Your task to perform on an android device: open wifi settings Image 0: 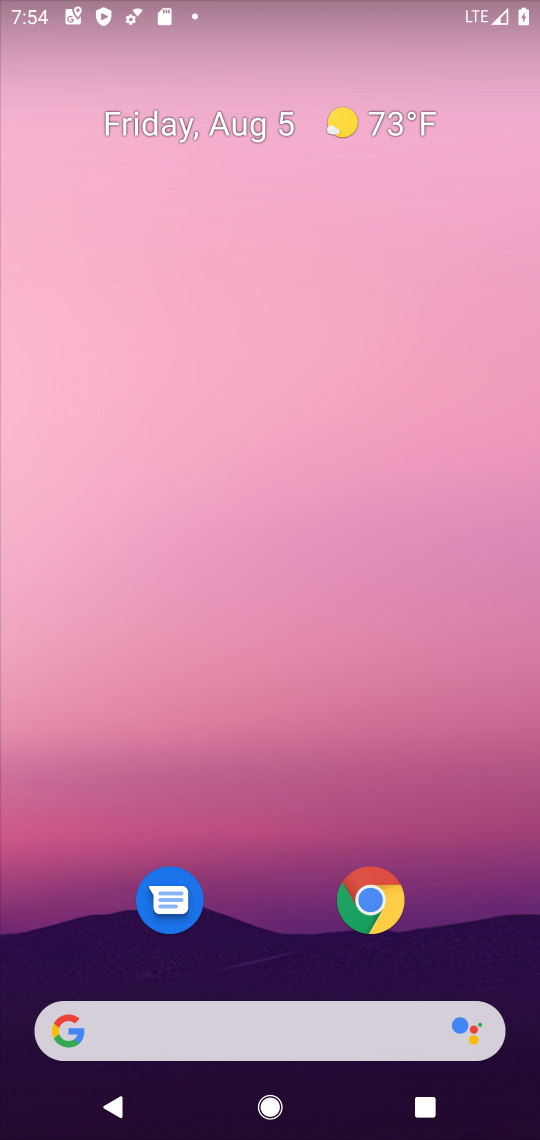
Step 0: drag from (228, 969) to (310, 397)
Your task to perform on an android device: open wifi settings Image 1: 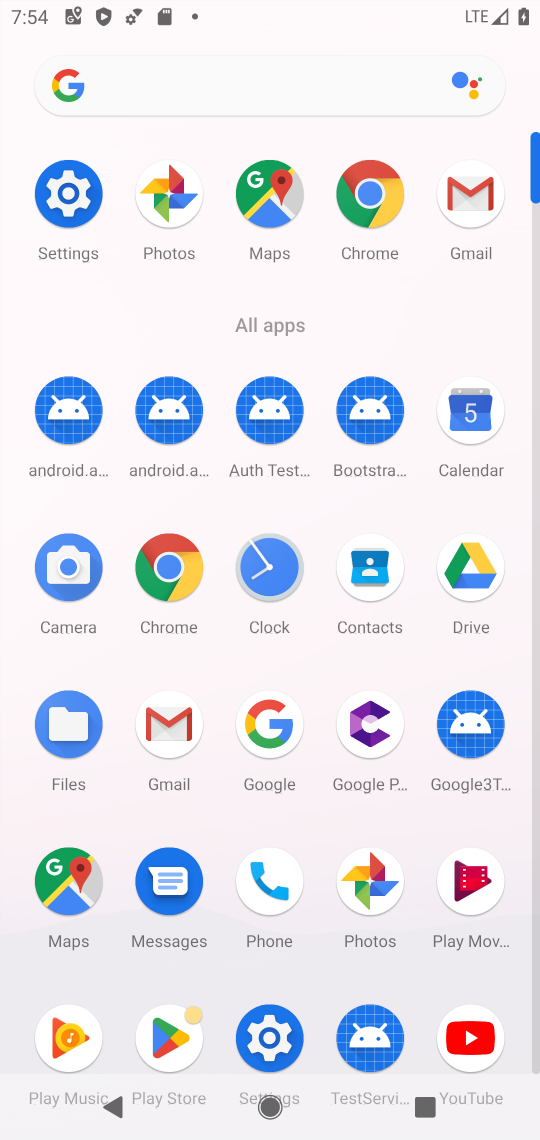
Step 1: click (270, 1018)
Your task to perform on an android device: open wifi settings Image 2: 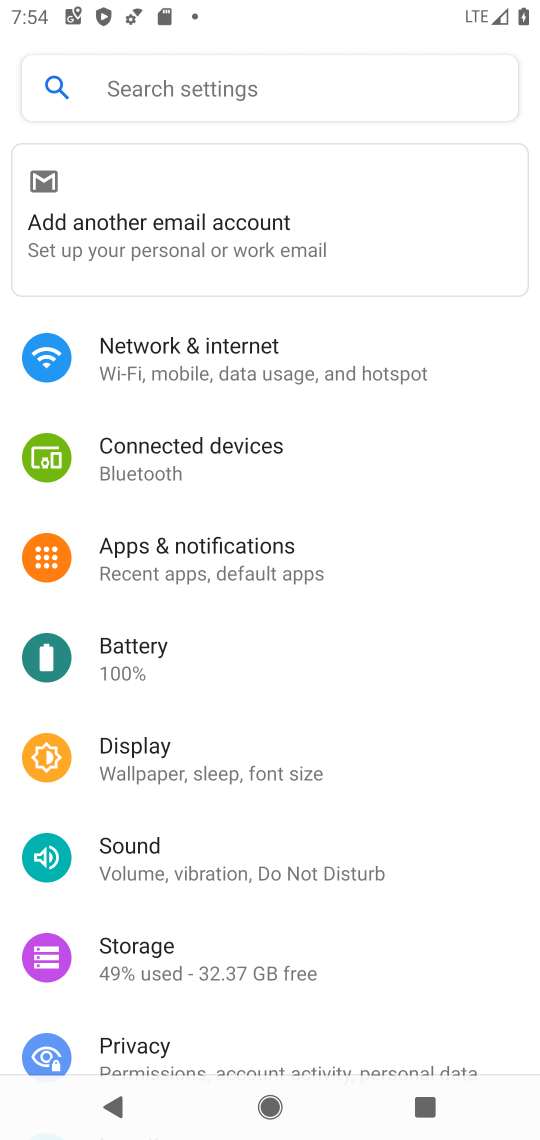
Step 2: click (165, 351)
Your task to perform on an android device: open wifi settings Image 3: 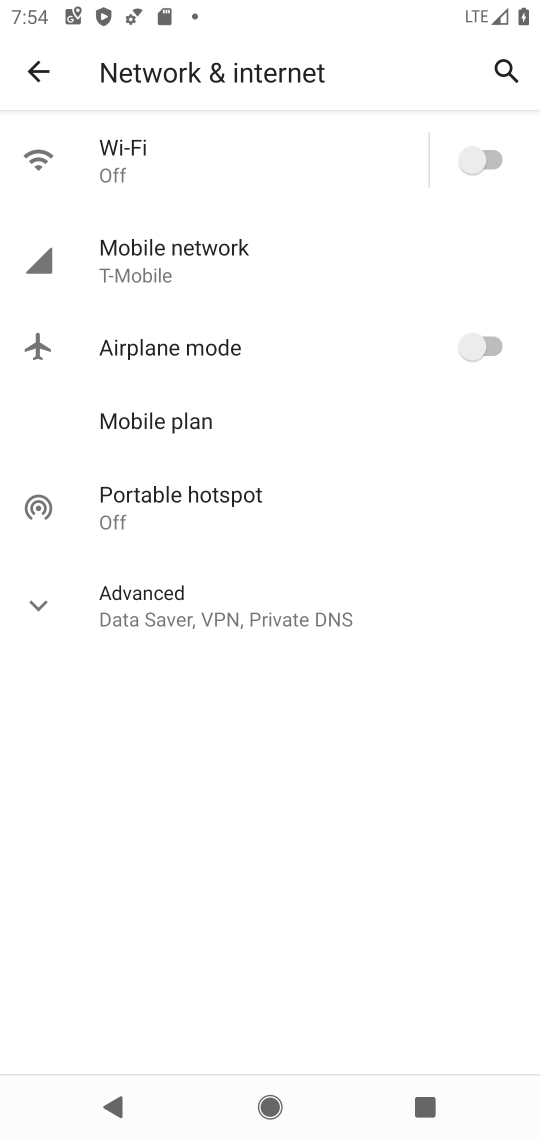
Step 3: click (132, 154)
Your task to perform on an android device: open wifi settings Image 4: 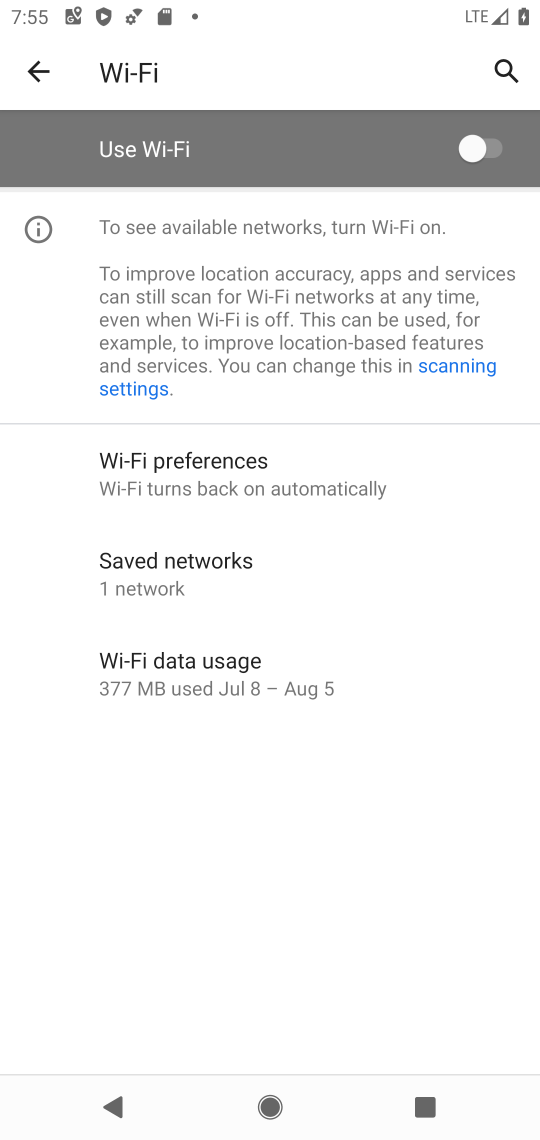
Step 4: click (491, 145)
Your task to perform on an android device: open wifi settings Image 5: 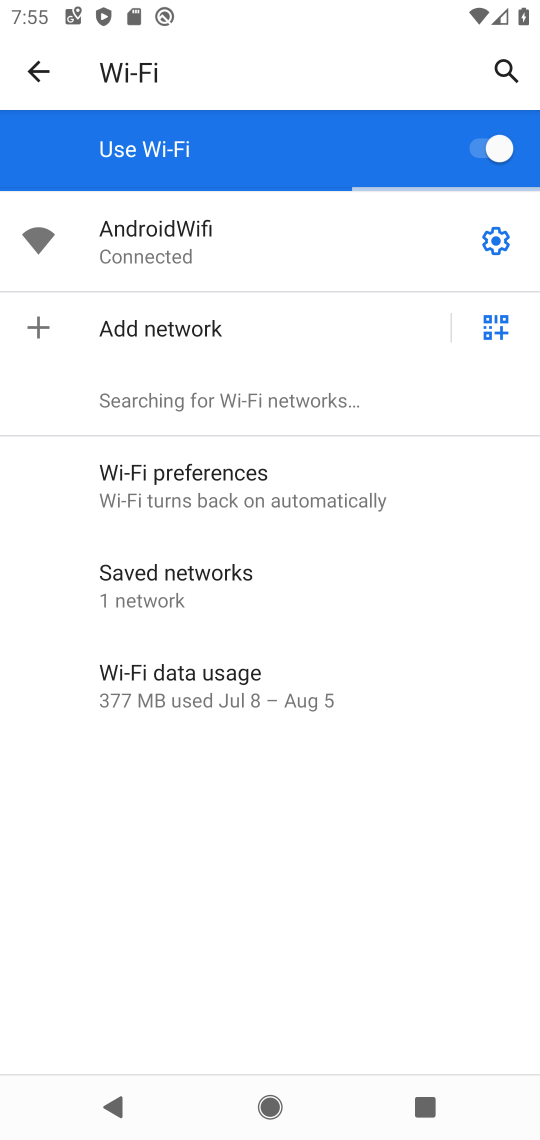
Step 5: click (496, 238)
Your task to perform on an android device: open wifi settings Image 6: 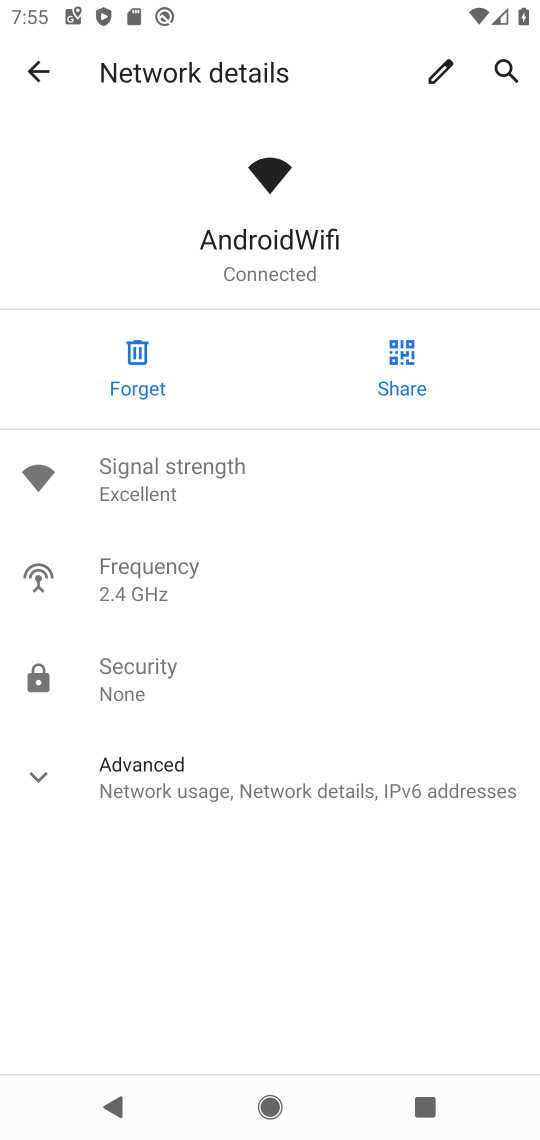
Step 6: click (153, 783)
Your task to perform on an android device: open wifi settings Image 7: 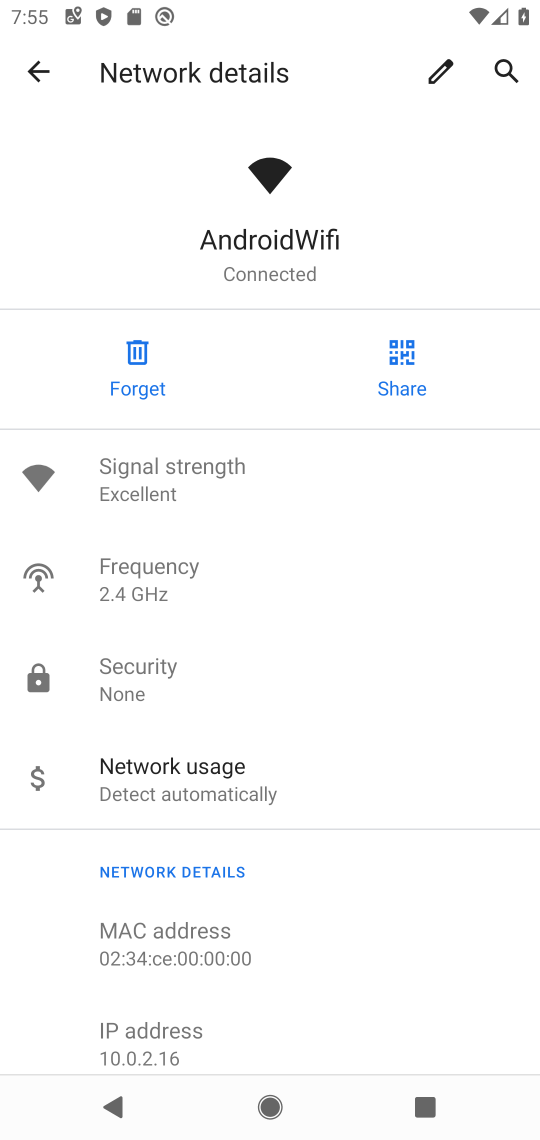
Step 7: task complete